Your task to perform on an android device: Open settings on Google Maps Image 0: 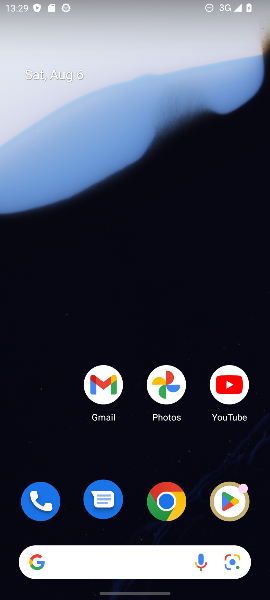
Step 0: click (126, 569)
Your task to perform on an android device: Open settings on Google Maps Image 1: 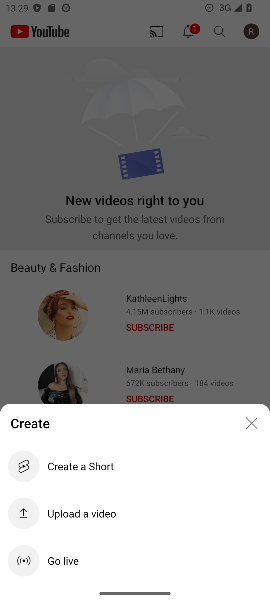
Step 1: press back button
Your task to perform on an android device: Open settings on Google Maps Image 2: 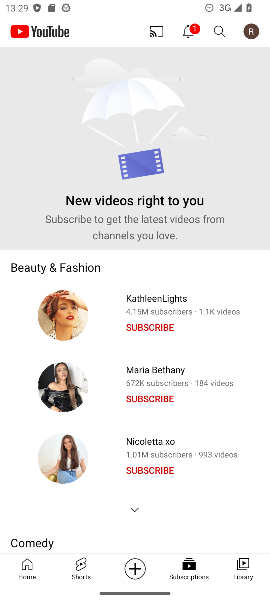
Step 2: press back button
Your task to perform on an android device: Open settings on Google Maps Image 3: 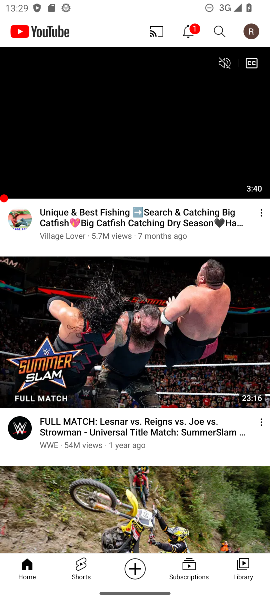
Step 3: press back button
Your task to perform on an android device: Open settings on Google Maps Image 4: 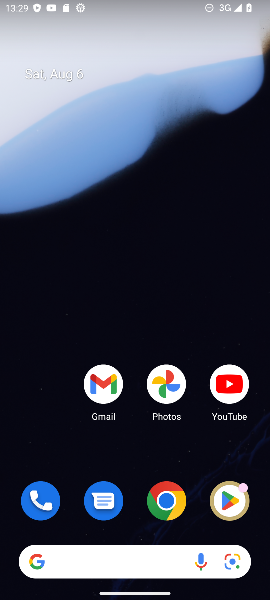
Step 4: drag from (125, 460) to (125, 144)
Your task to perform on an android device: Open settings on Google Maps Image 5: 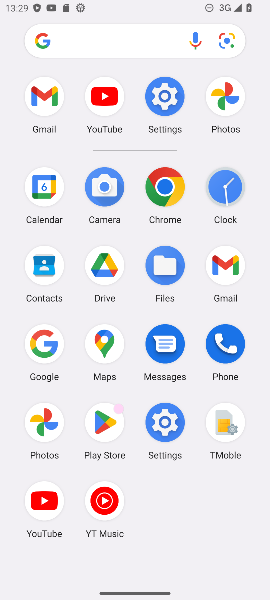
Step 5: click (100, 344)
Your task to perform on an android device: Open settings on Google Maps Image 6: 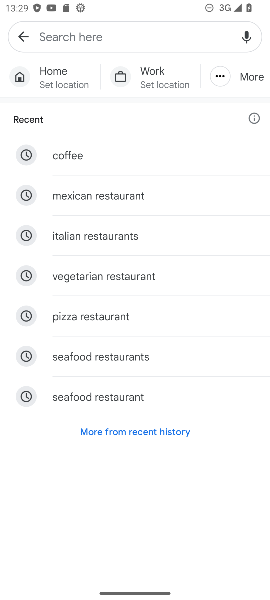
Step 6: click (24, 40)
Your task to perform on an android device: Open settings on Google Maps Image 7: 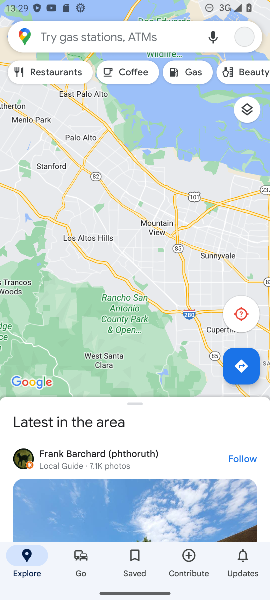
Step 7: click (250, 38)
Your task to perform on an android device: Open settings on Google Maps Image 8: 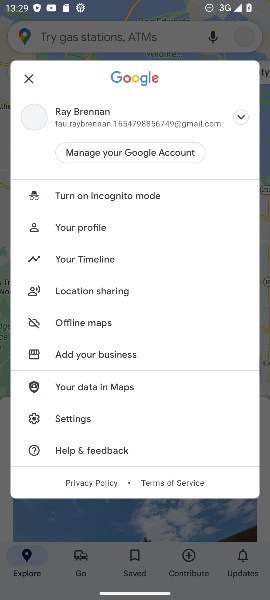
Step 8: click (79, 415)
Your task to perform on an android device: Open settings on Google Maps Image 9: 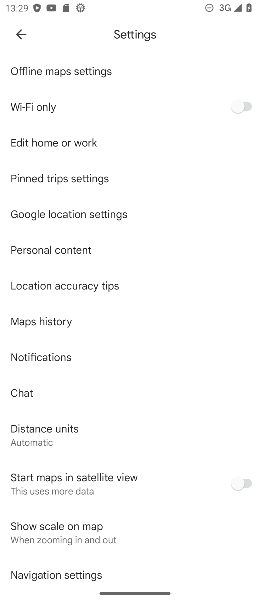
Step 9: task complete